Your task to perform on an android device: turn notification dots on Image 0: 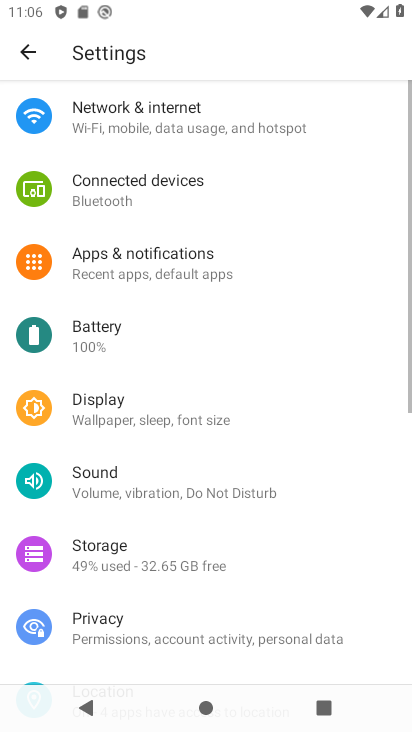
Step 0: press home button
Your task to perform on an android device: turn notification dots on Image 1: 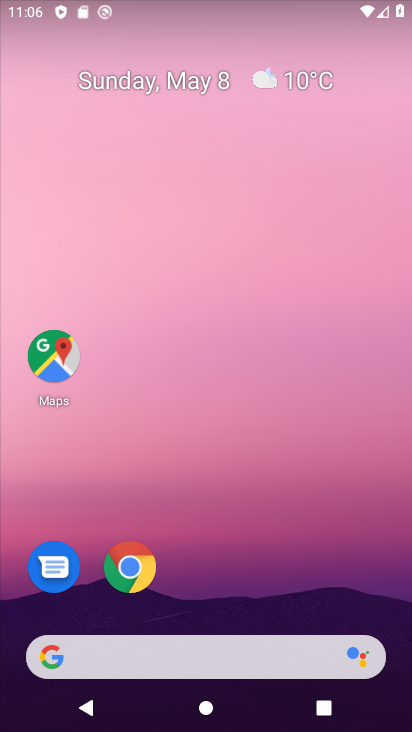
Step 1: drag from (198, 575) to (245, 164)
Your task to perform on an android device: turn notification dots on Image 2: 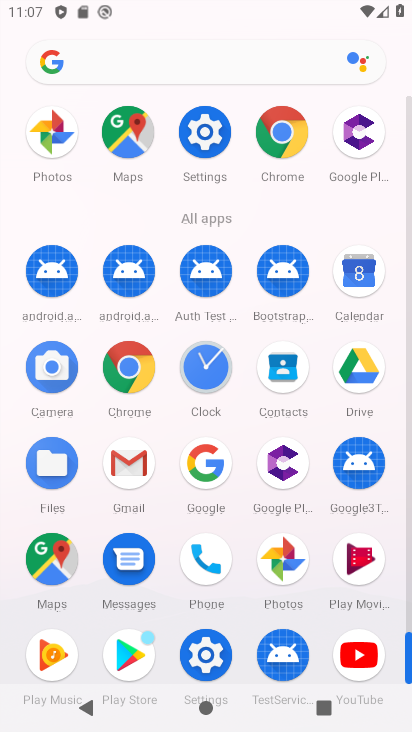
Step 2: click (198, 141)
Your task to perform on an android device: turn notification dots on Image 3: 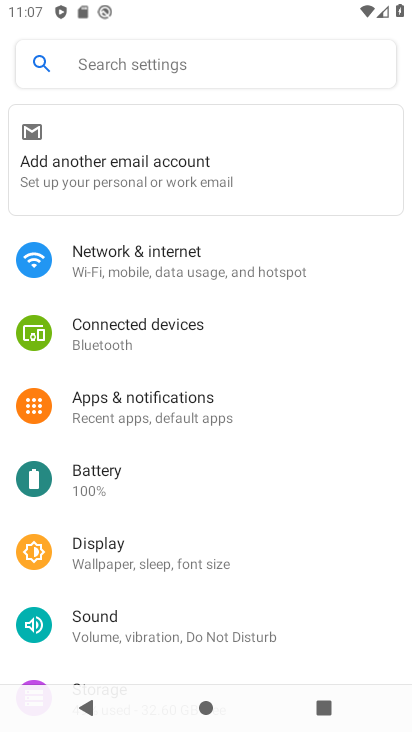
Step 3: click (220, 401)
Your task to perform on an android device: turn notification dots on Image 4: 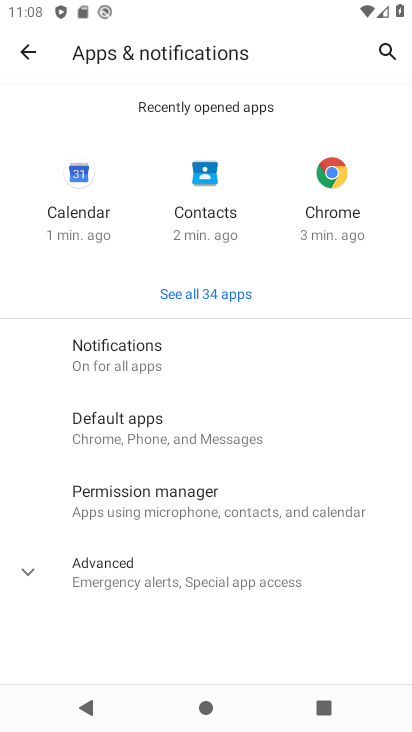
Step 4: click (174, 359)
Your task to perform on an android device: turn notification dots on Image 5: 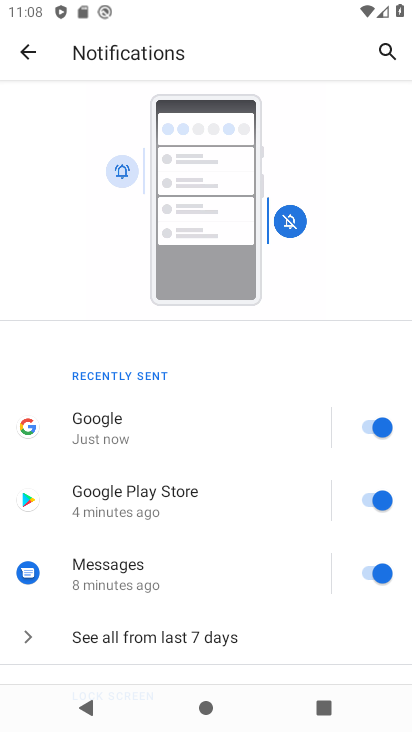
Step 5: drag from (186, 503) to (209, 43)
Your task to perform on an android device: turn notification dots on Image 6: 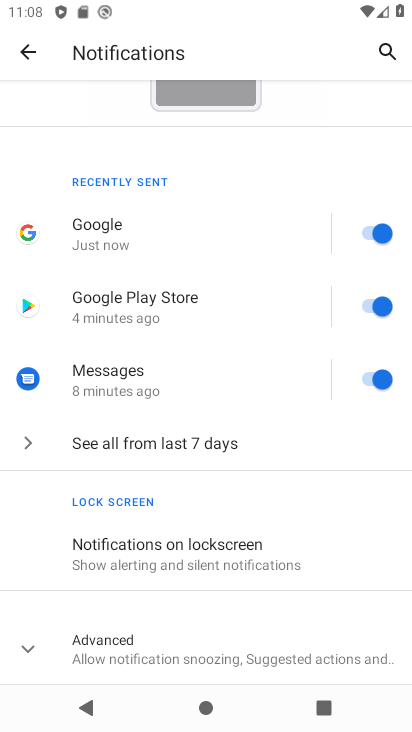
Step 6: drag from (296, 530) to (269, 260)
Your task to perform on an android device: turn notification dots on Image 7: 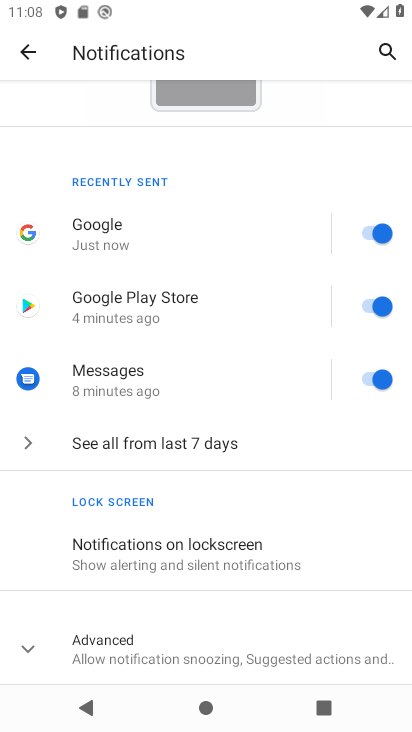
Step 7: click (46, 641)
Your task to perform on an android device: turn notification dots on Image 8: 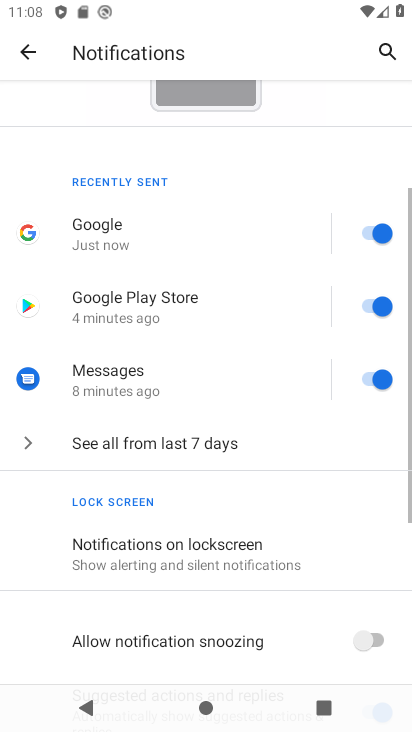
Step 8: task complete